Your task to perform on an android device: open app "Pinterest" (install if not already installed) and enter user name: "Switzerland@yahoo.com" and password: "arithmetics" Image 0: 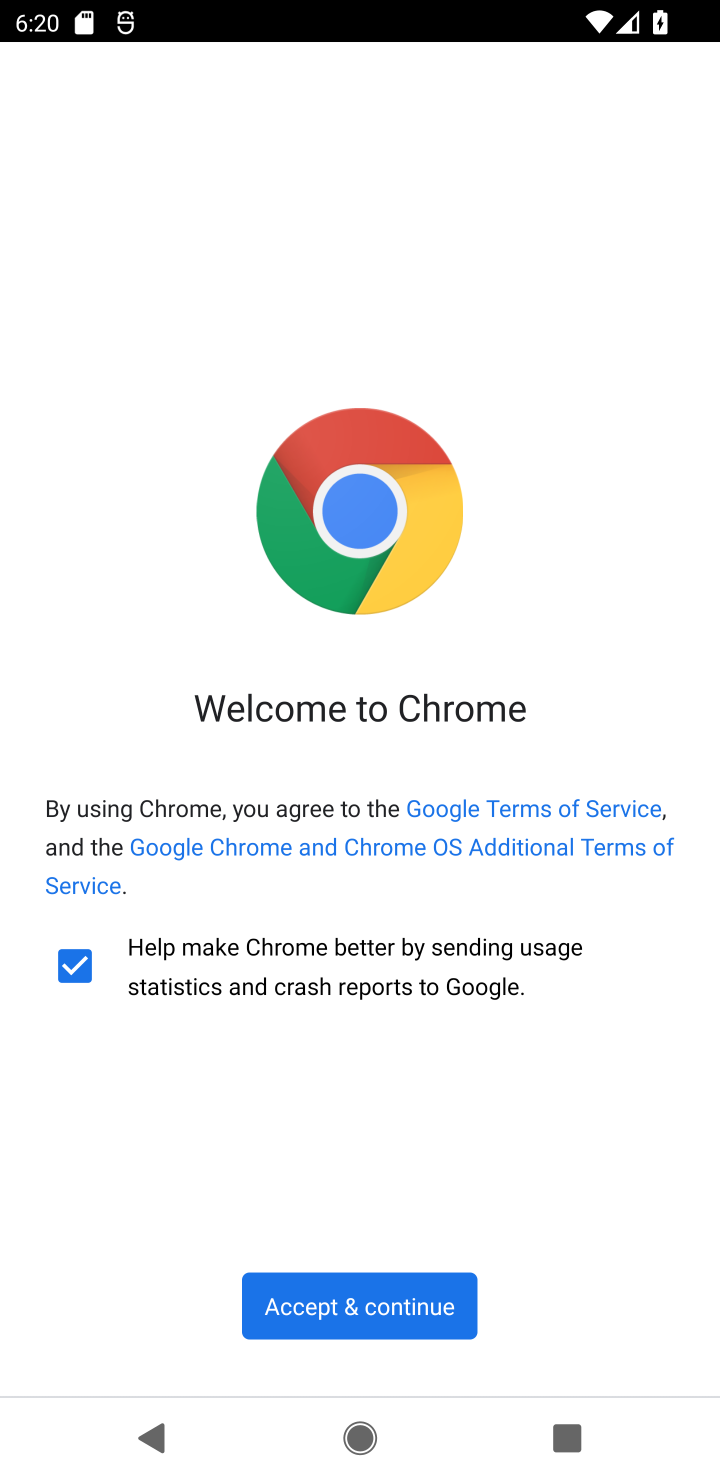
Step 0: press back button
Your task to perform on an android device: open app "Pinterest" (install if not already installed) and enter user name: "Switzerland@yahoo.com" and password: "arithmetics" Image 1: 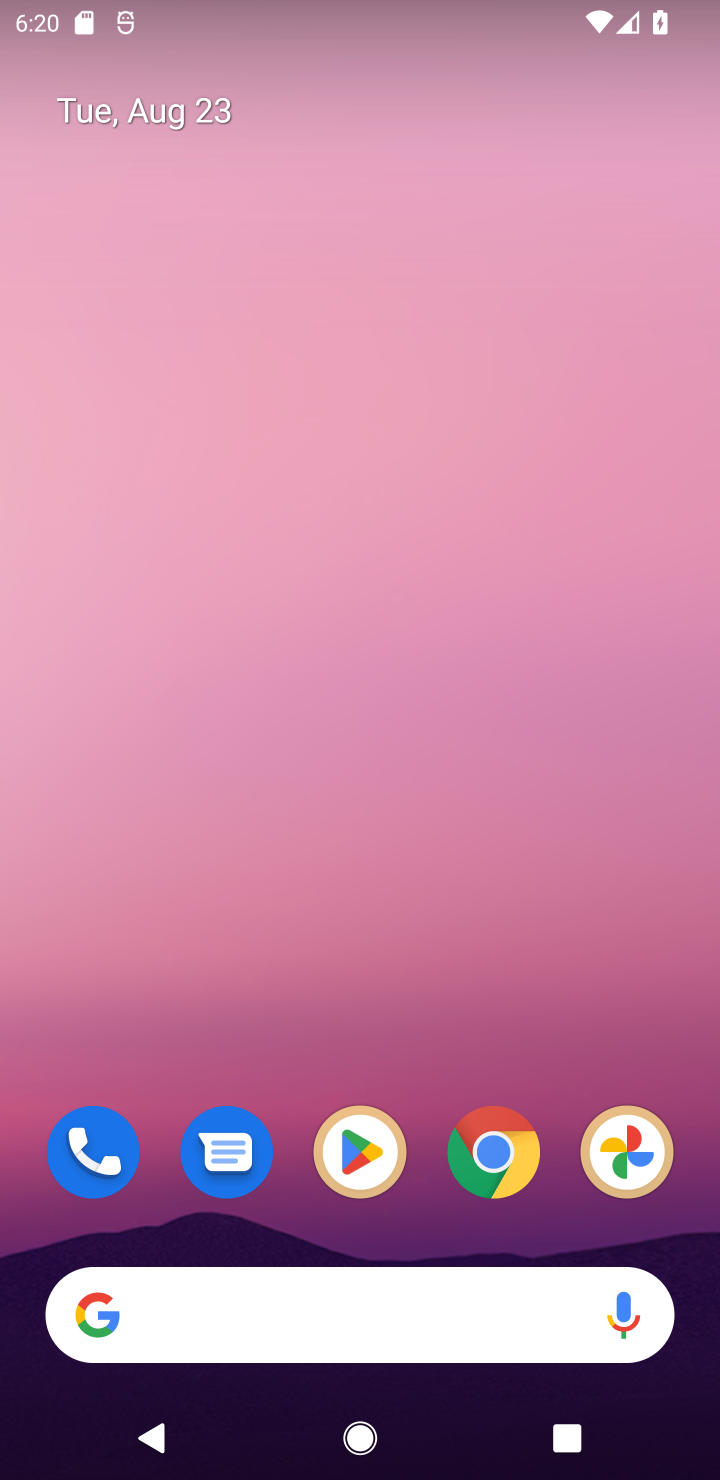
Step 1: click (372, 1154)
Your task to perform on an android device: open app "Pinterest" (install if not already installed) and enter user name: "Switzerland@yahoo.com" and password: "arithmetics" Image 2: 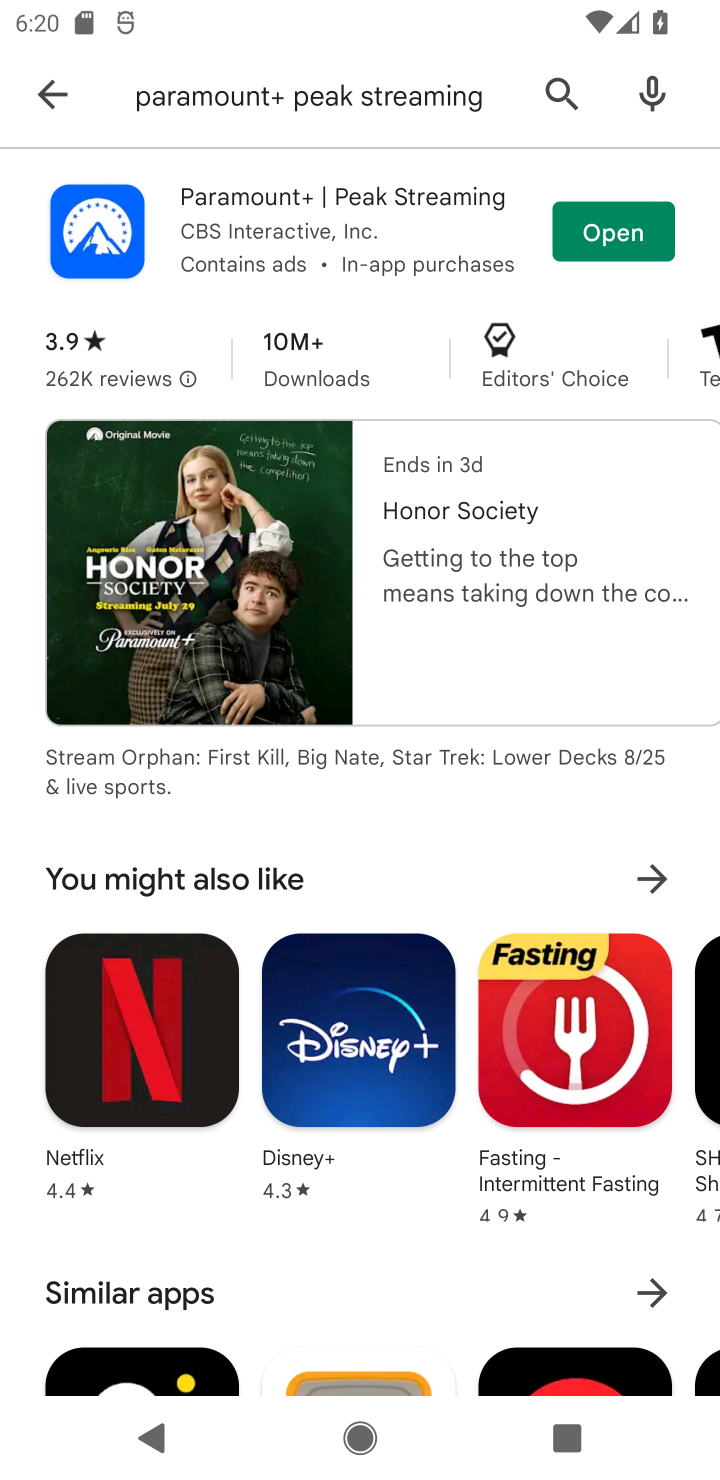
Step 2: click (569, 73)
Your task to perform on an android device: open app "Pinterest" (install if not already installed) and enter user name: "Switzerland@yahoo.com" and password: "arithmetics" Image 3: 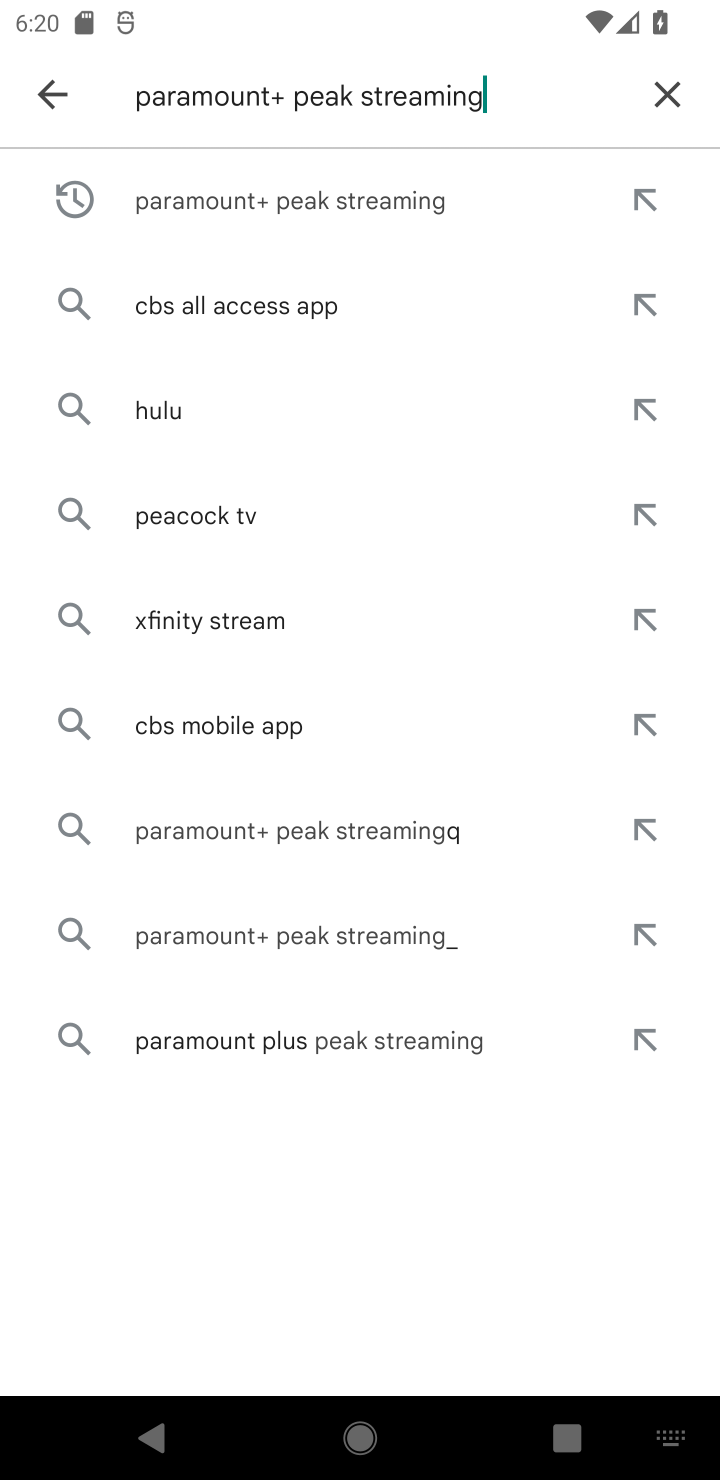
Step 3: click (669, 91)
Your task to perform on an android device: open app "Pinterest" (install if not already installed) and enter user name: "Switzerland@yahoo.com" and password: "arithmetics" Image 4: 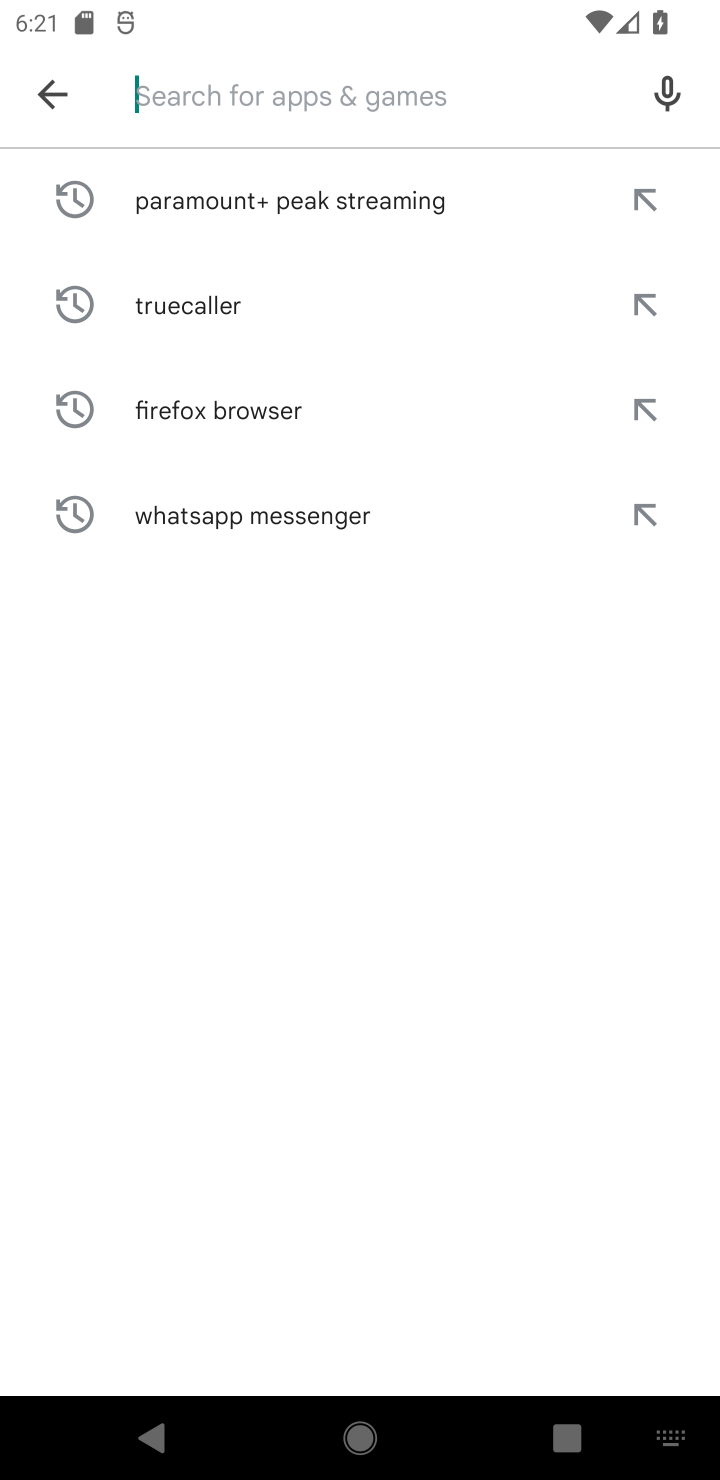
Step 4: click (263, 82)
Your task to perform on an android device: open app "Pinterest" (install if not already installed) and enter user name: "Switzerland@yahoo.com" and password: "arithmetics" Image 5: 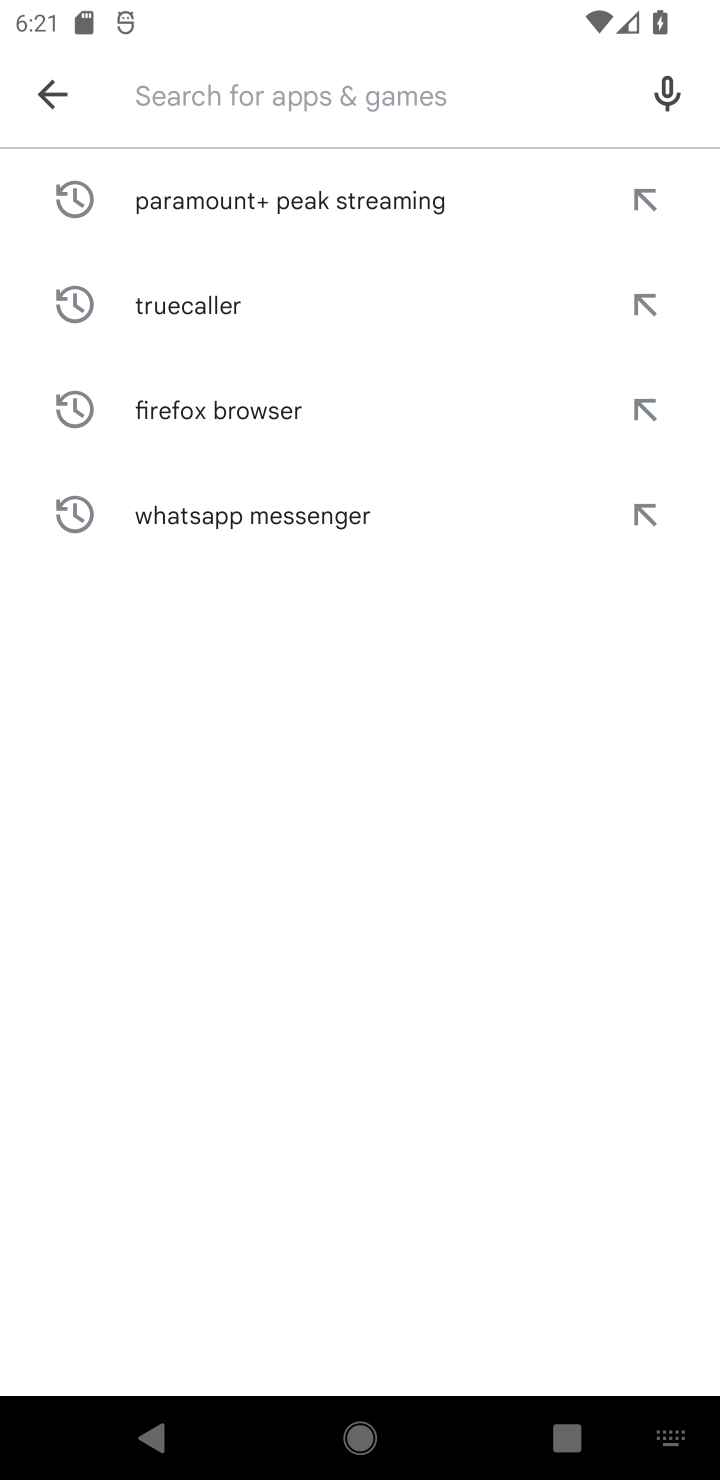
Step 5: type "Pinterest"
Your task to perform on an android device: open app "Pinterest" (install if not already installed) and enter user name: "Switzerland@yahoo.com" and password: "arithmetics" Image 6: 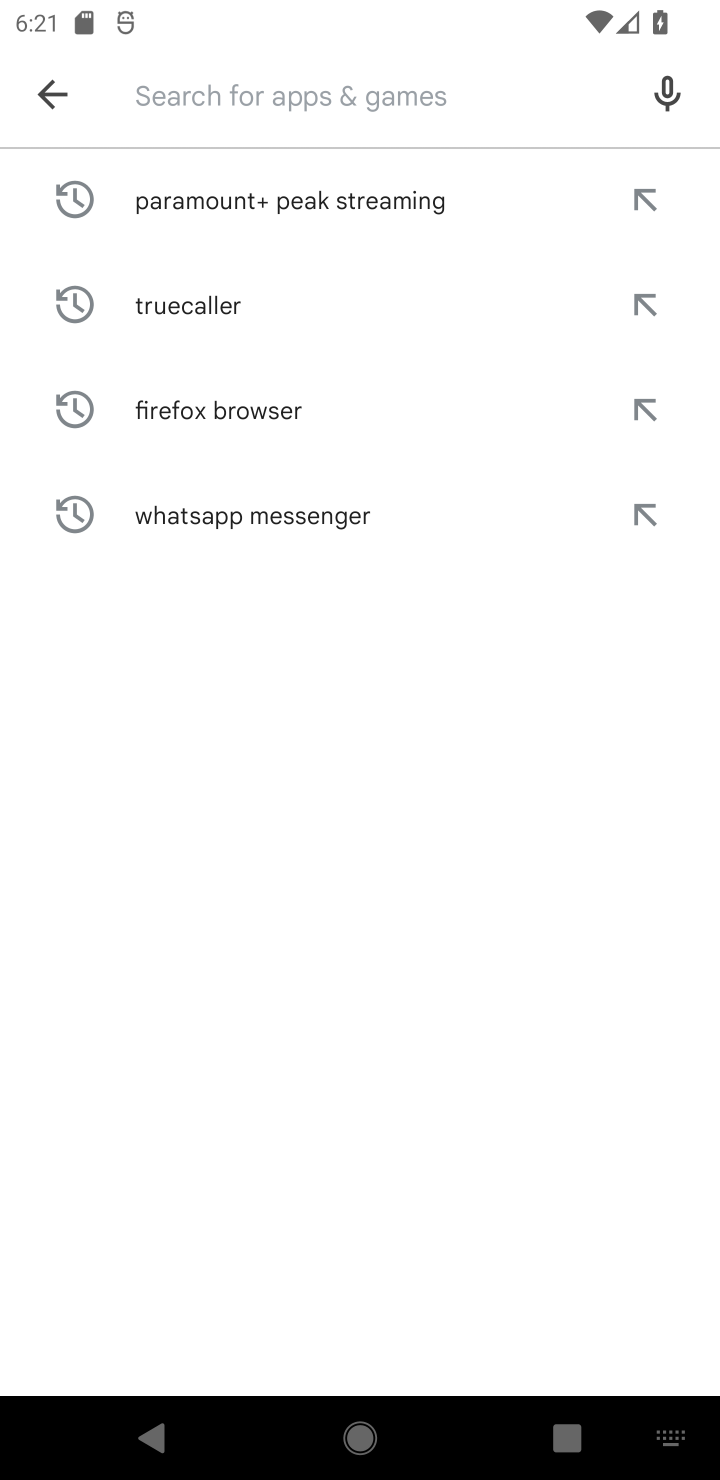
Step 6: click (402, 1080)
Your task to perform on an android device: open app "Pinterest" (install if not already installed) and enter user name: "Switzerland@yahoo.com" and password: "arithmetics" Image 7: 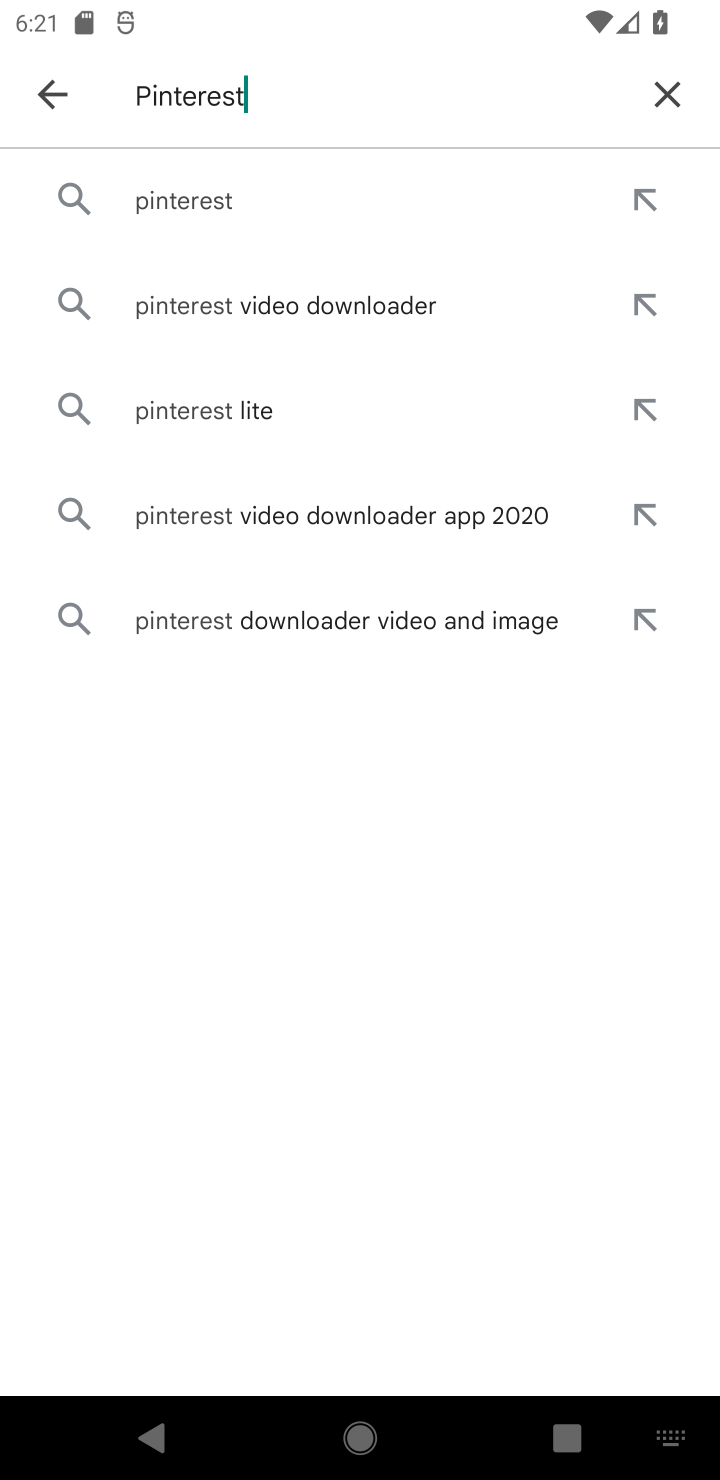
Step 7: click (188, 192)
Your task to perform on an android device: open app "Pinterest" (install if not already installed) and enter user name: "Switzerland@yahoo.com" and password: "arithmetics" Image 8: 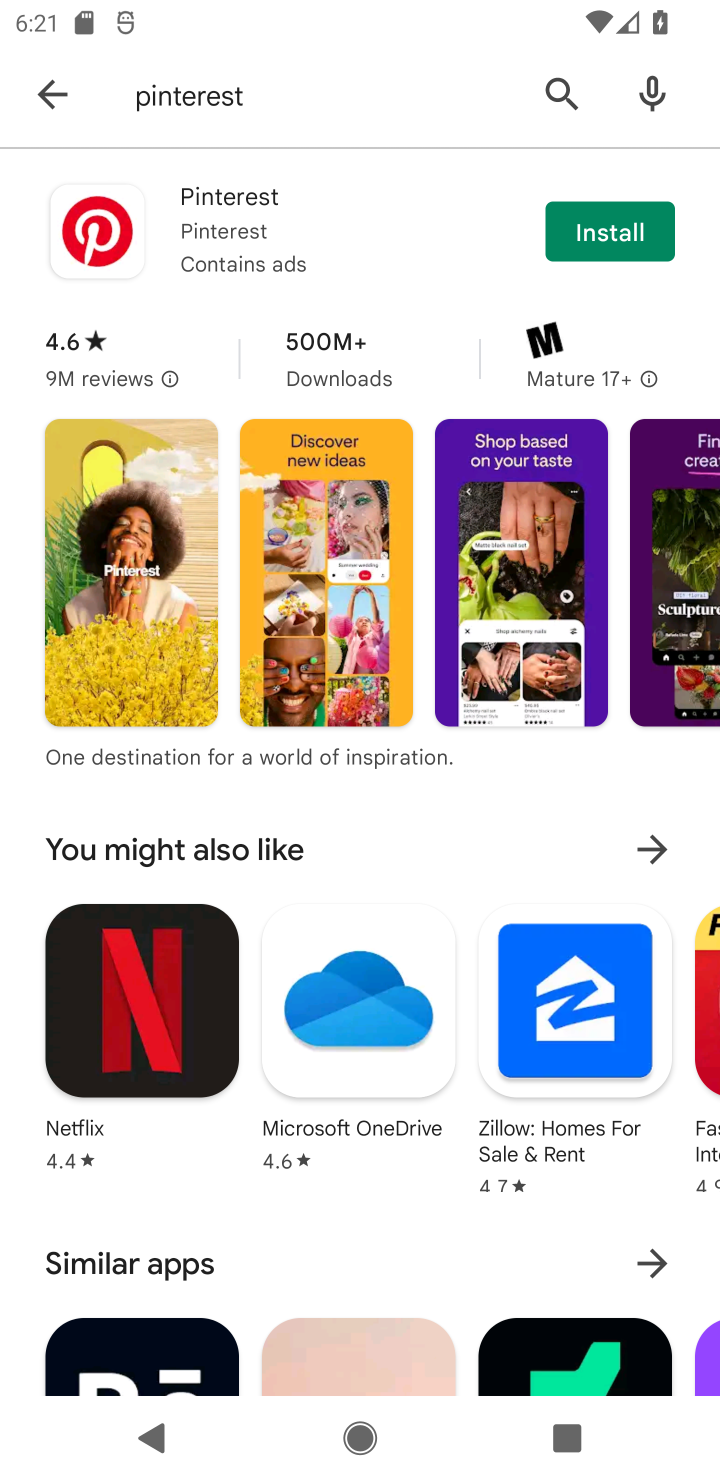
Step 8: click (631, 230)
Your task to perform on an android device: open app "Pinterest" (install if not already installed) and enter user name: "Switzerland@yahoo.com" and password: "arithmetics" Image 9: 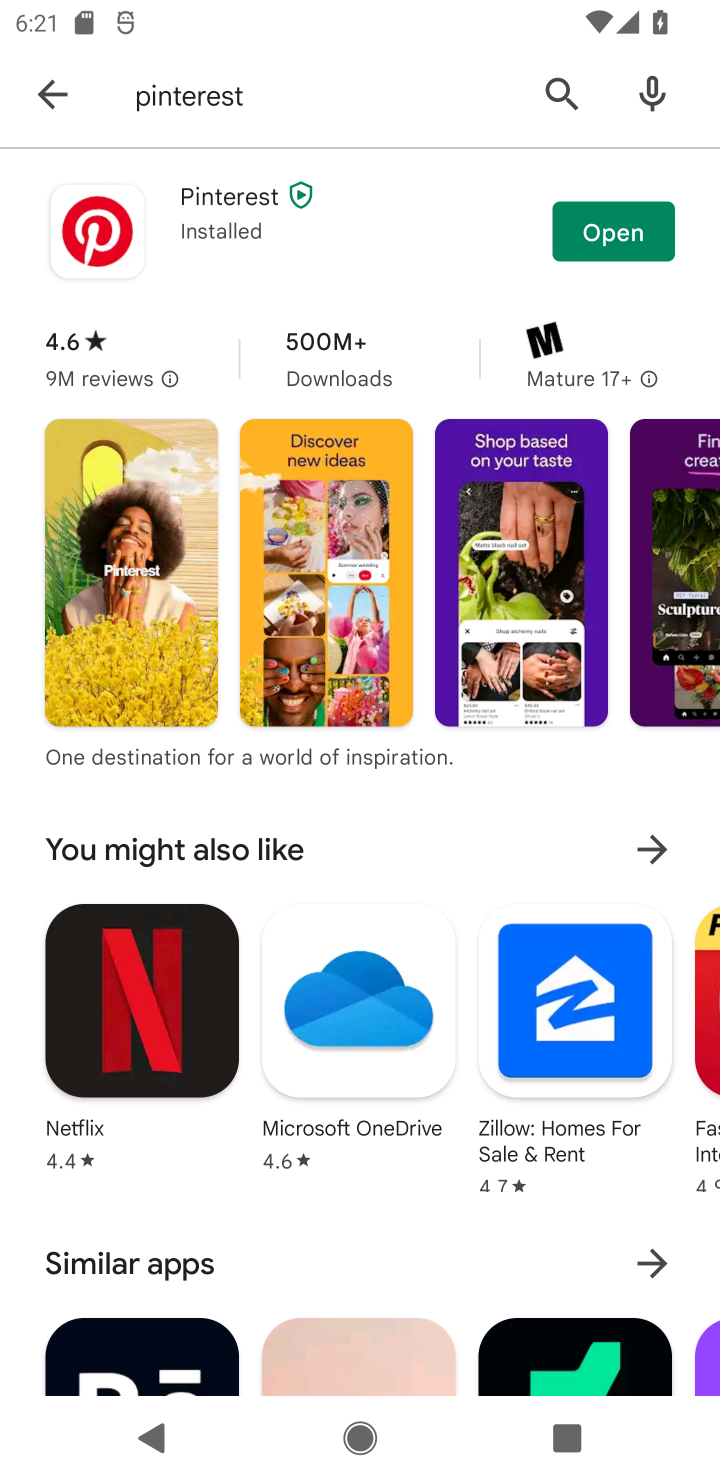
Step 9: click (614, 241)
Your task to perform on an android device: open app "Pinterest" (install if not already installed) and enter user name: "Switzerland@yahoo.com" and password: "arithmetics" Image 10: 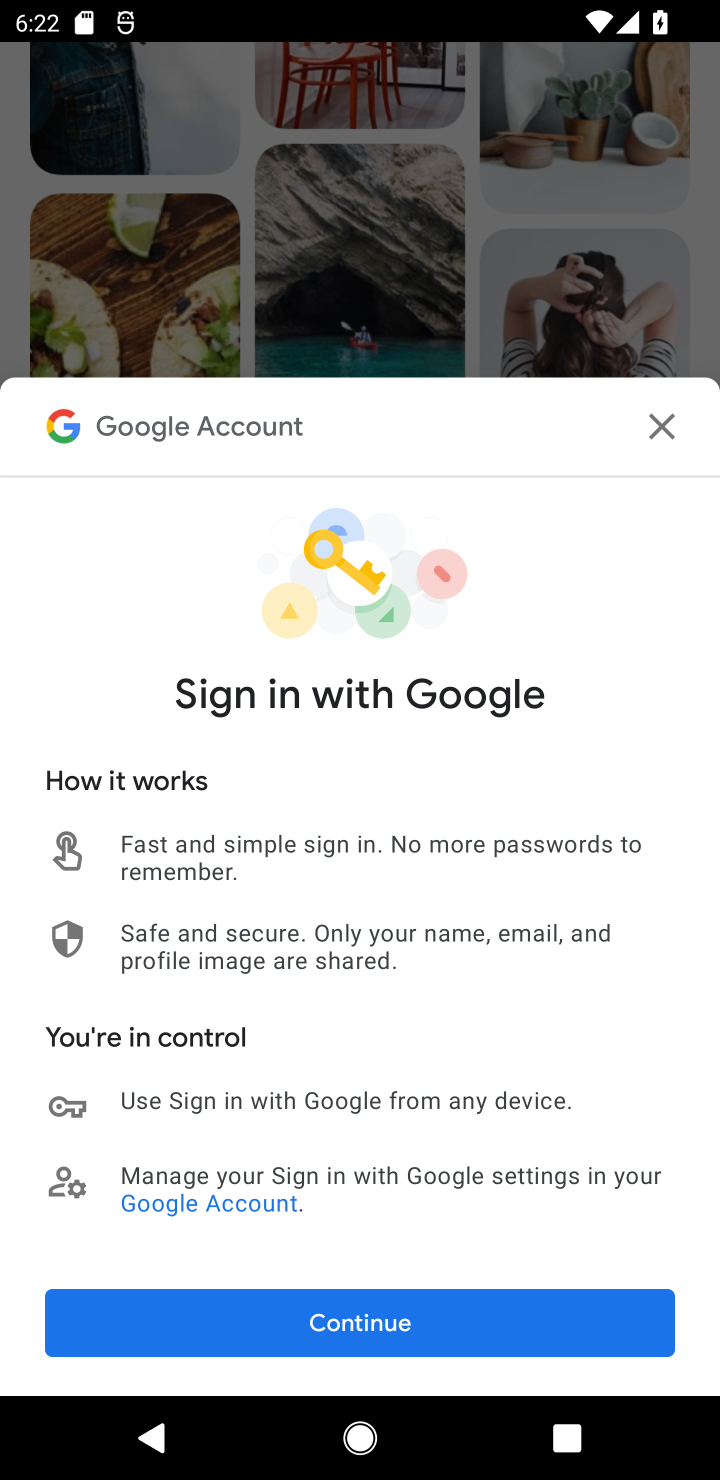
Step 10: click (688, 423)
Your task to perform on an android device: open app "Pinterest" (install if not already installed) and enter user name: "Switzerland@yahoo.com" and password: "arithmetics" Image 11: 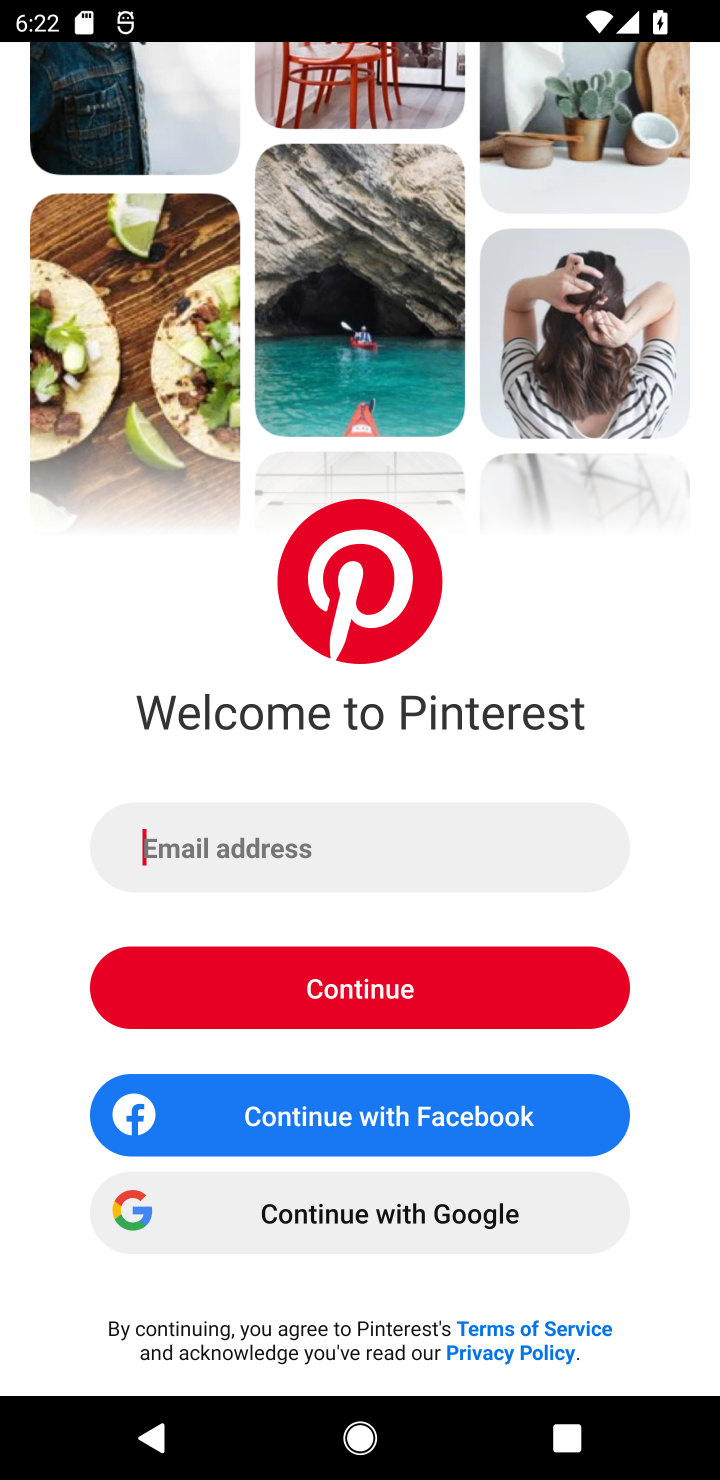
Step 11: click (230, 836)
Your task to perform on an android device: open app "Pinterest" (install if not already installed) and enter user name: "Switzerland@yahoo.com" and password: "arithmetics" Image 12: 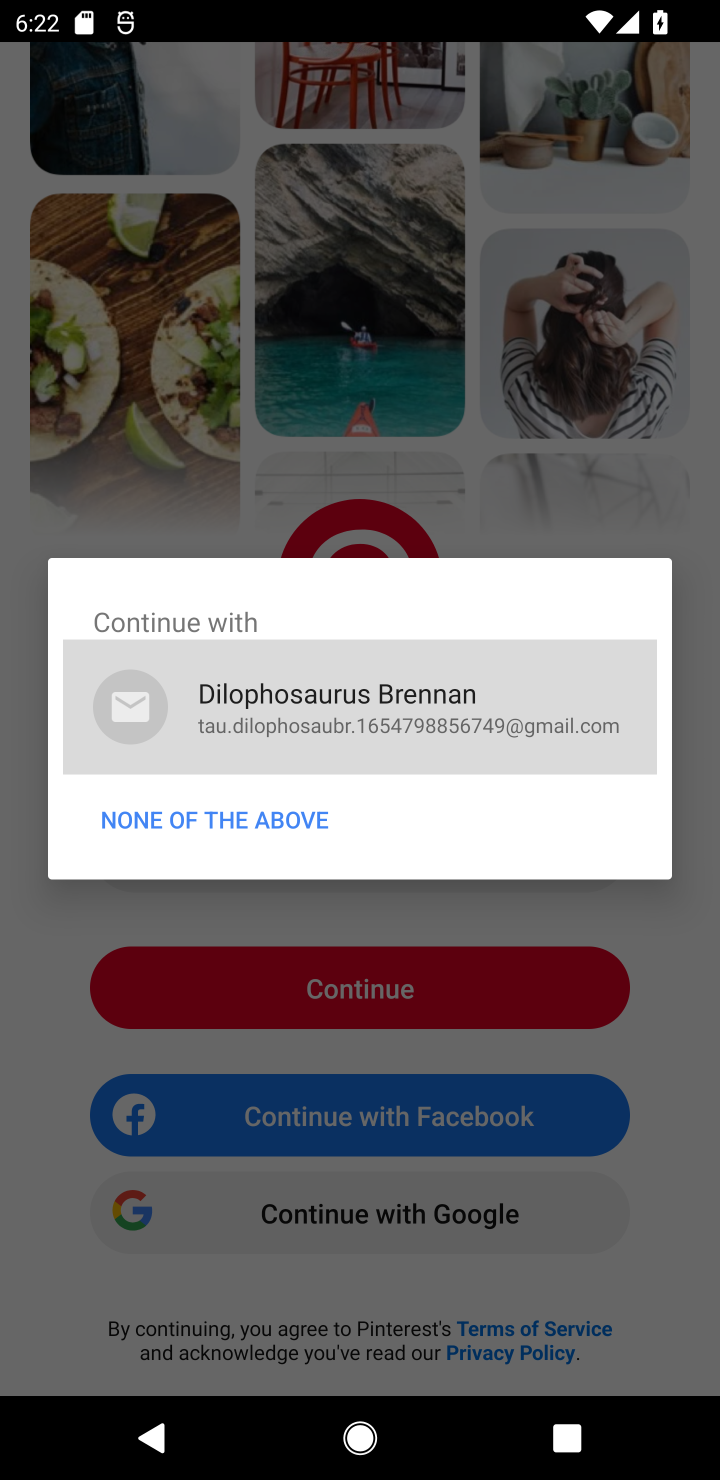
Step 12: type "Switzerland@yahoo.com"
Your task to perform on an android device: open app "Pinterest" (install if not already installed) and enter user name: "Switzerland@yahoo.com" and password: "arithmetics" Image 13: 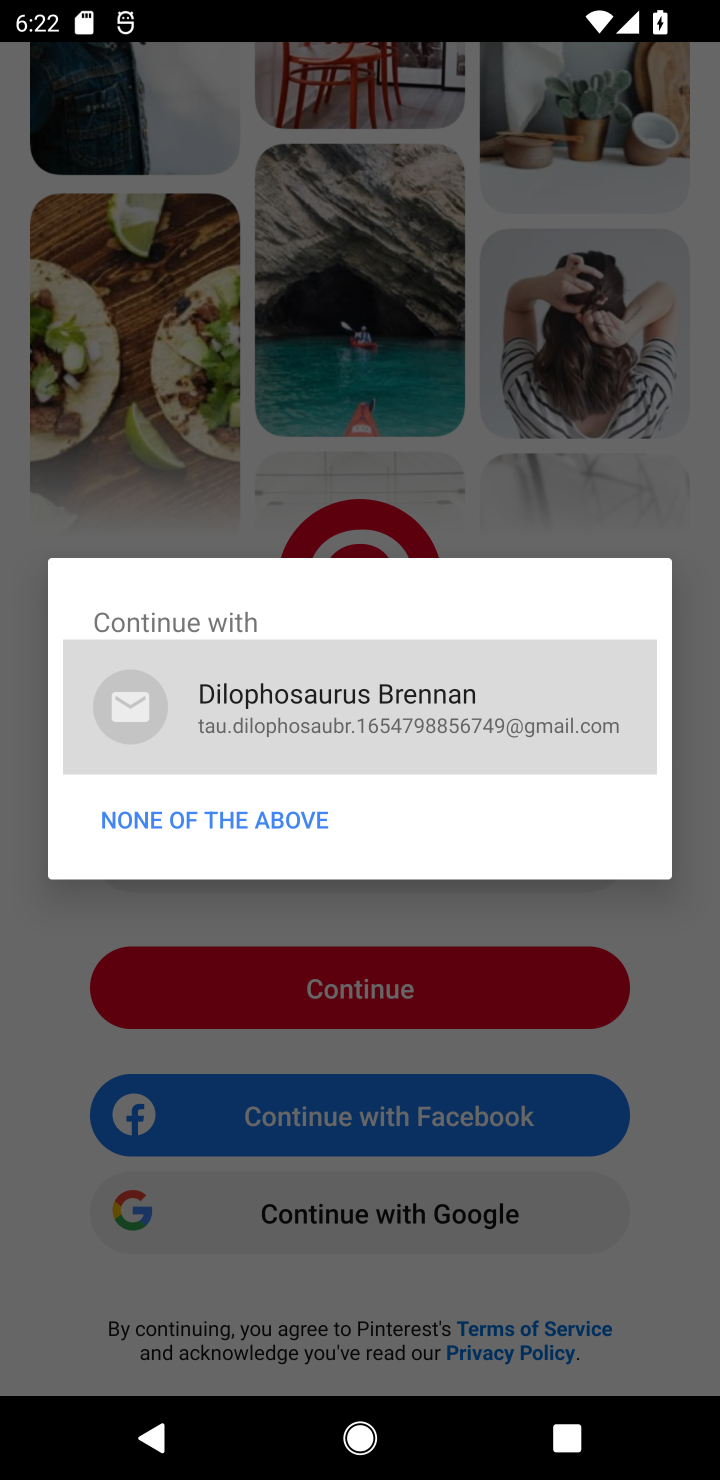
Step 13: click (255, 804)
Your task to perform on an android device: open app "Pinterest" (install if not already installed) and enter user name: "Switzerland@yahoo.com" and password: "arithmetics" Image 14: 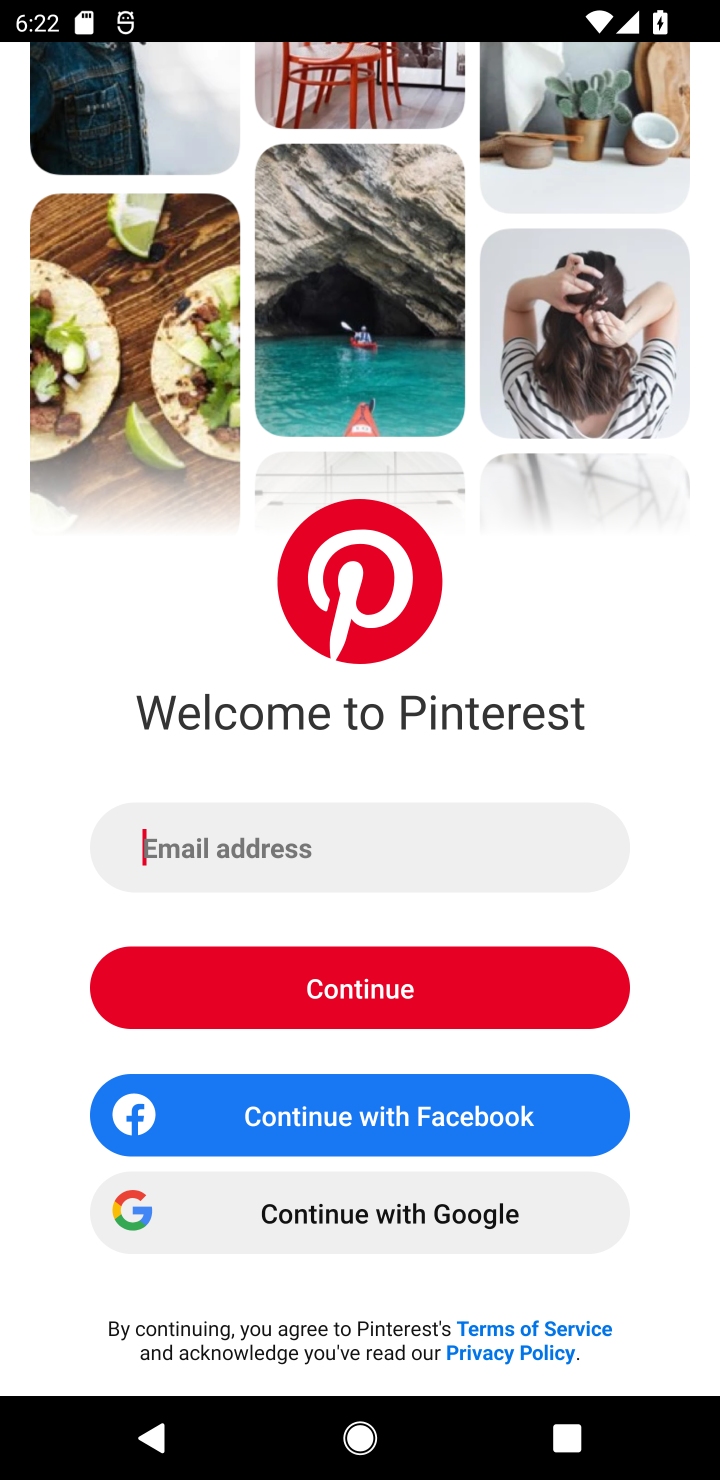
Step 14: type "Switzerland@yahoo.com"
Your task to perform on an android device: open app "Pinterest" (install if not already installed) and enter user name: "Switzerland@yahoo.com" and password: "arithmetics" Image 15: 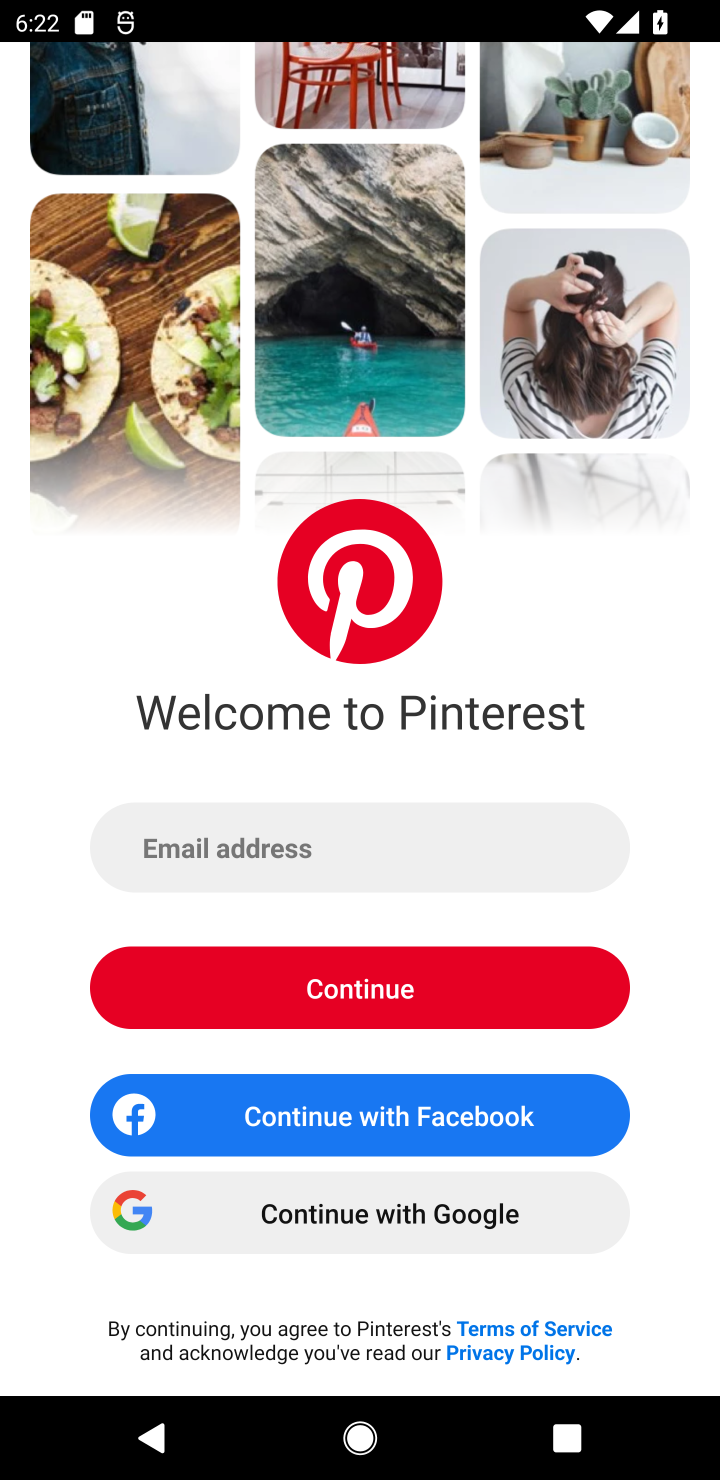
Step 15: click (30, 575)
Your task to perform on an android device: open app "Pinterest" (install if not already installed) and enter user name: "Switzerland@yahoo.com" and password: "arithmetics" Image 16: 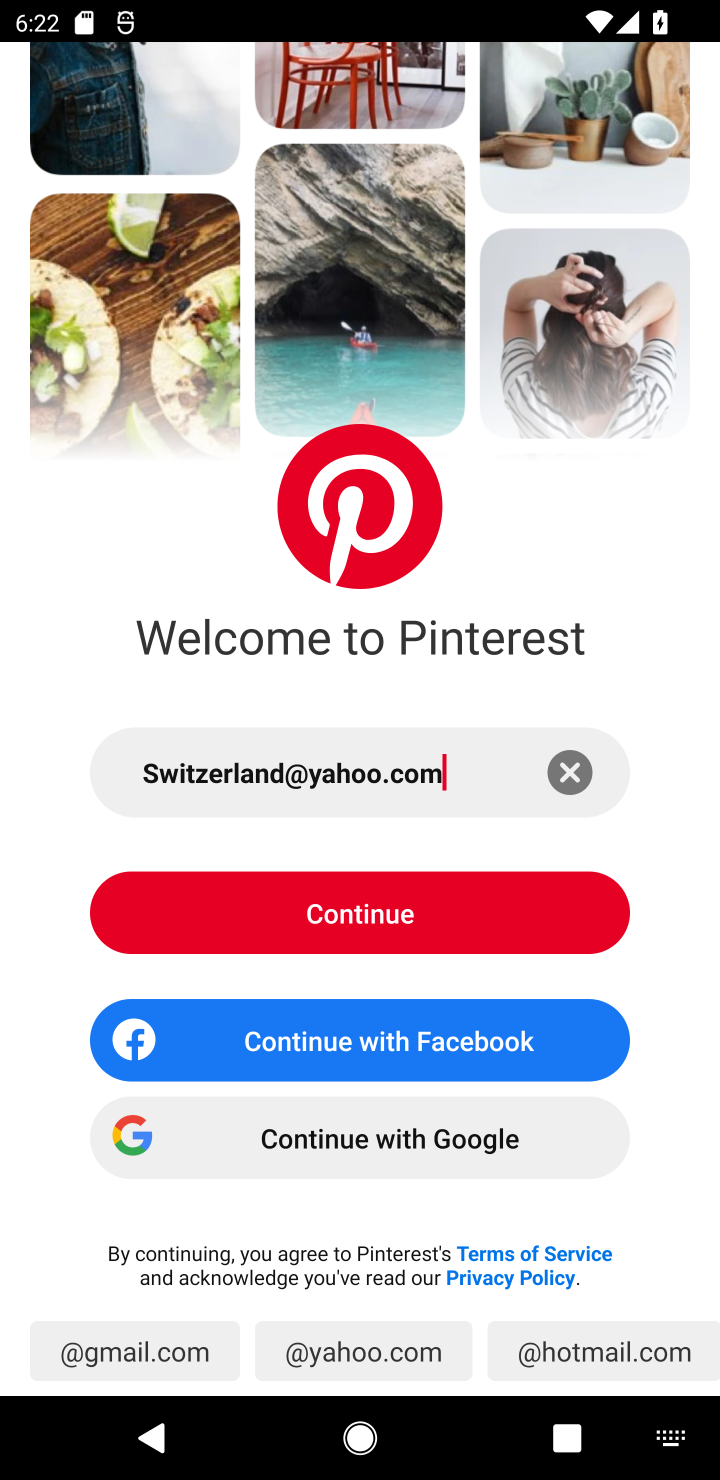
Step 16: click (330, 916)
Your task to perform on an android device: open app "Pinterest" (install if not already installed) and enter user name: "Switzerland@yahoo.com" and password: "arithmetics" Image 17: 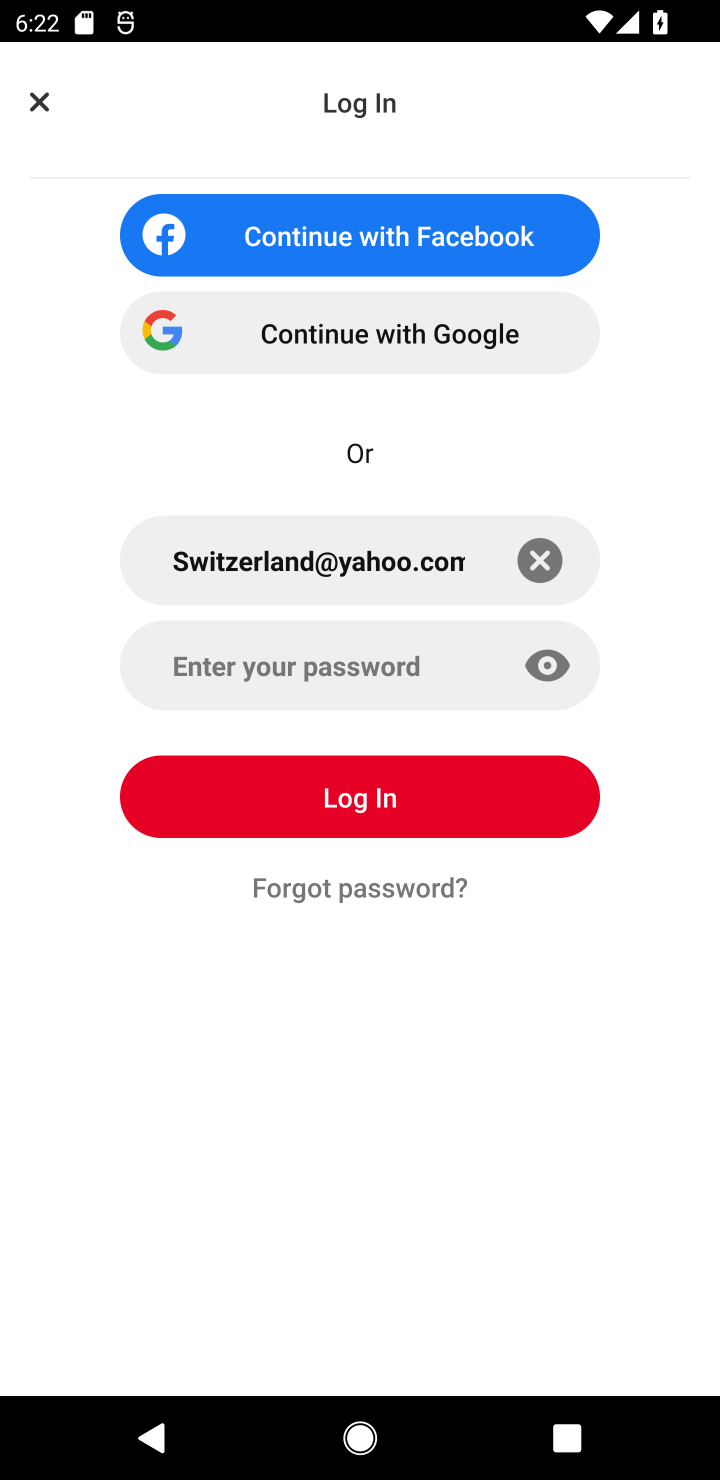
Step 17: click (249, 656)
Your task to perform on an android device: open app "Pinterest" (install if not already installed) and enter user name: "Switzerland@yahoo.com" and password: "arithmetics" Image 18: 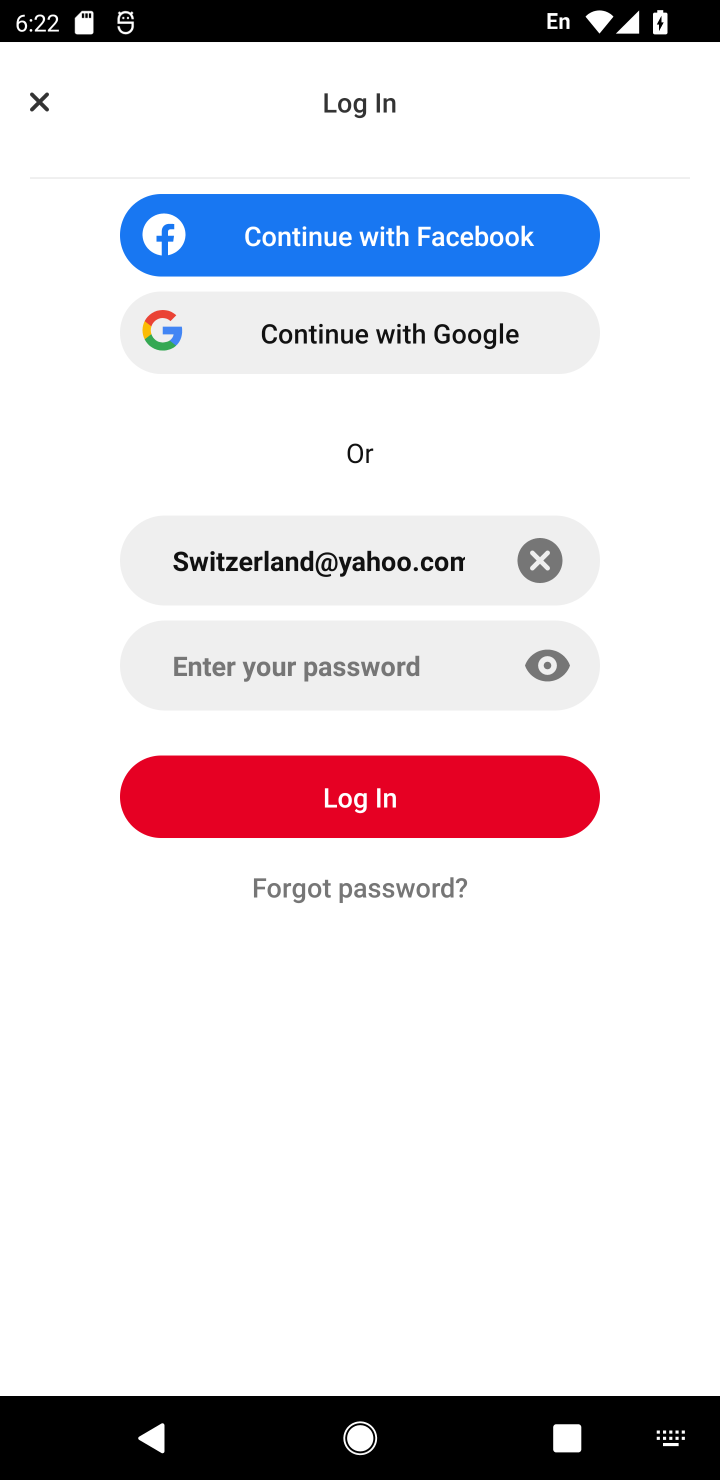
Step 18: click (214, 660)
Your task to perform on an android device: open app "Pinterest" (install if not already installed) and enter user name: "Switzerland@yahoo.com" and password: "arithmetics" Image 19: 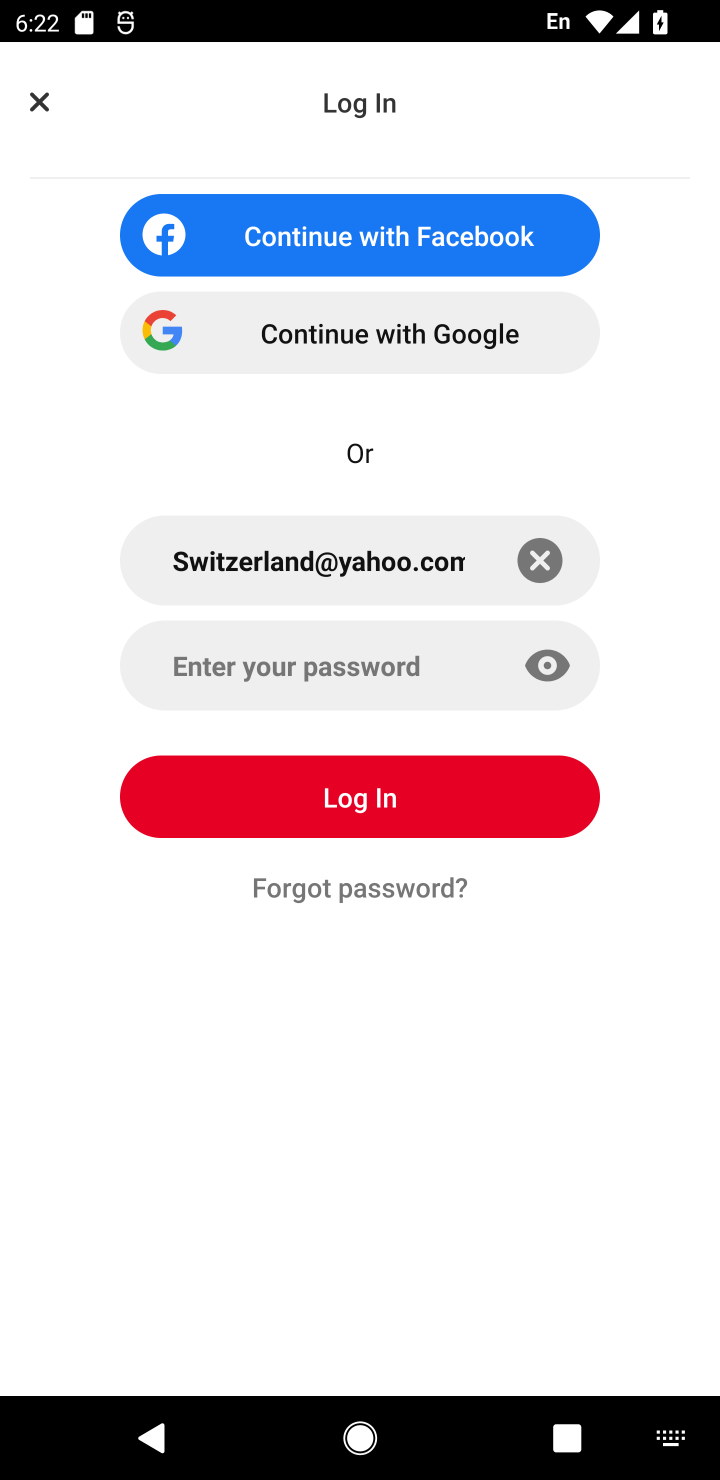
Step 19: type "arithmetics"
Your task to perform on an android device: open app "Pinterest" (install if not already installed) and enter user name: "Switzerland@yahoo.com" and password: "arithmetics" Image 20: 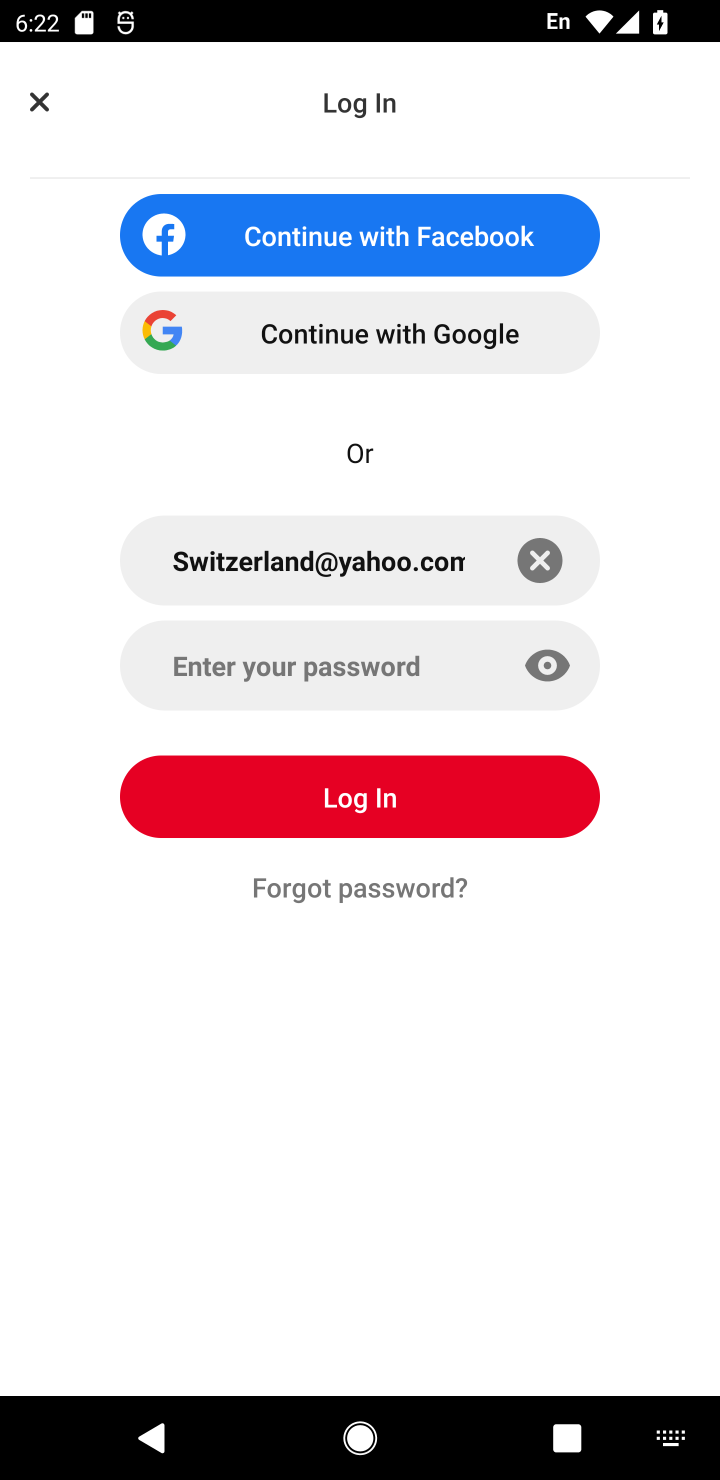
Step 20: click (280, 1277)
Your task to perform on an android device: open app "Pinterest" (install if not already installed) and enter user name: "Switzerland@yahoo.com" and password: "arithmetics" Image 21: 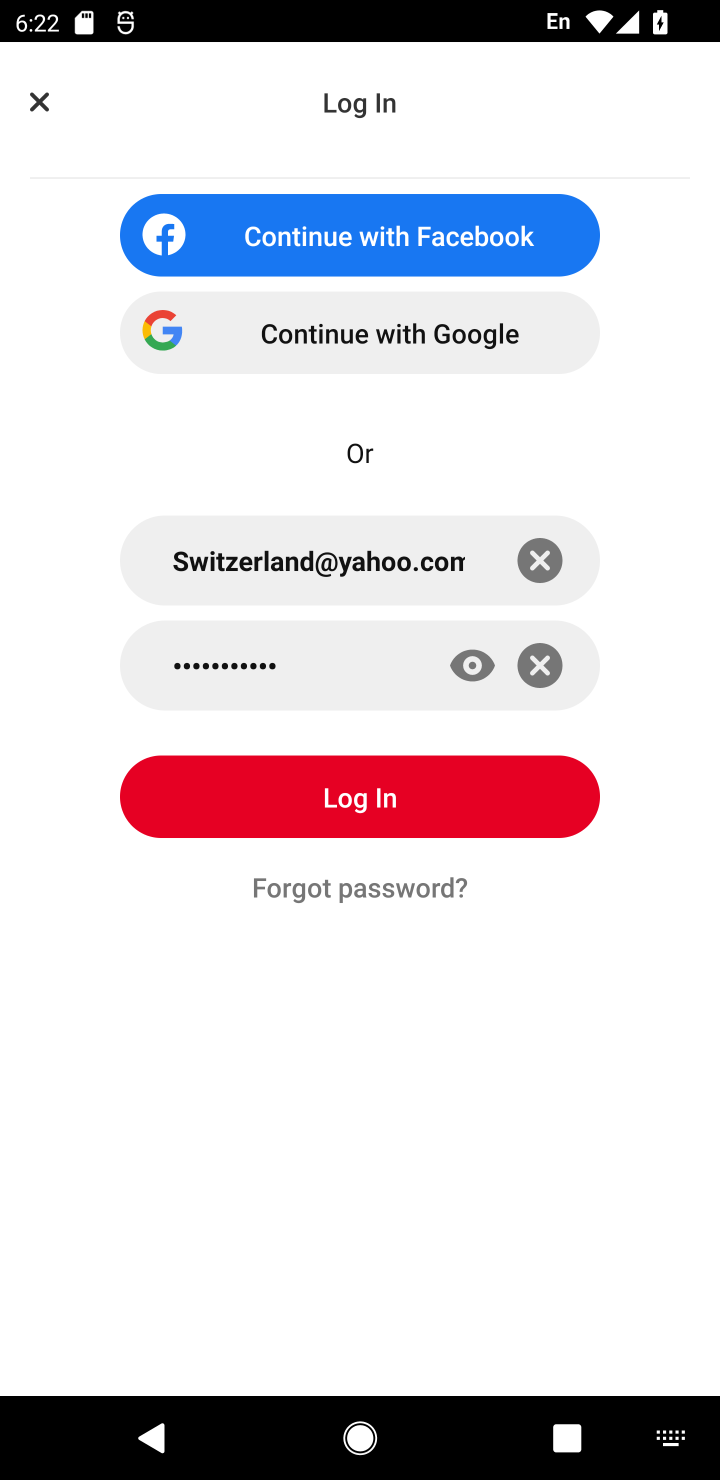
Step 21: task complete